Your task to perform on an android device: Find coffee shops on Maps Image 0: 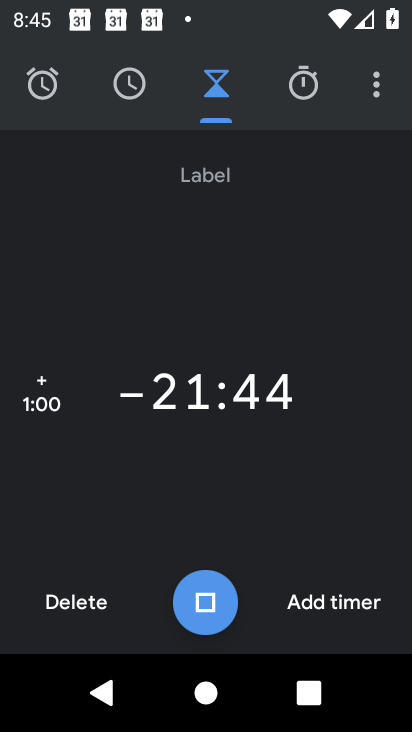
Step 0: click (97, 615)
Your task to perform on an android device: Find coffee shops on Maps Image 1: 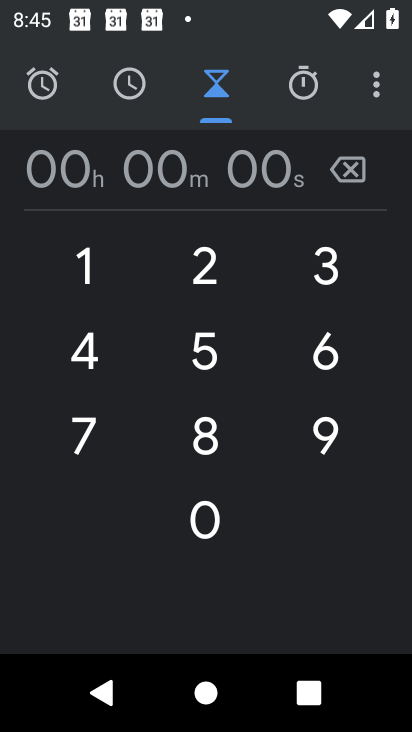
Step 1: press home button
Your task to perform on an android device: Find coffee shops on Maps Image 2: 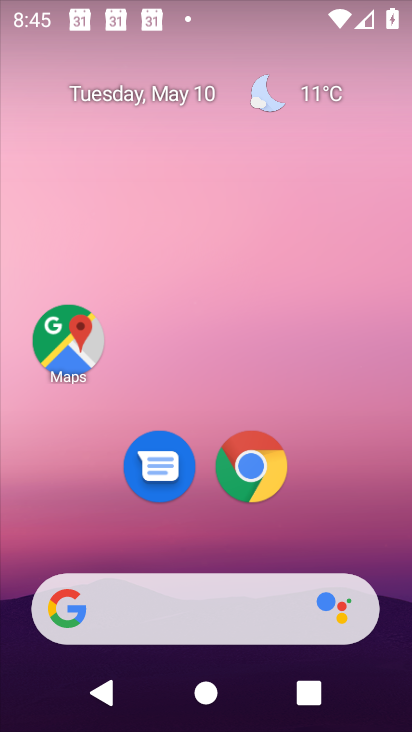
Step 2: click (77, 345)
Your task to perform on an android device: Find coffee shops on Maps Image 3: 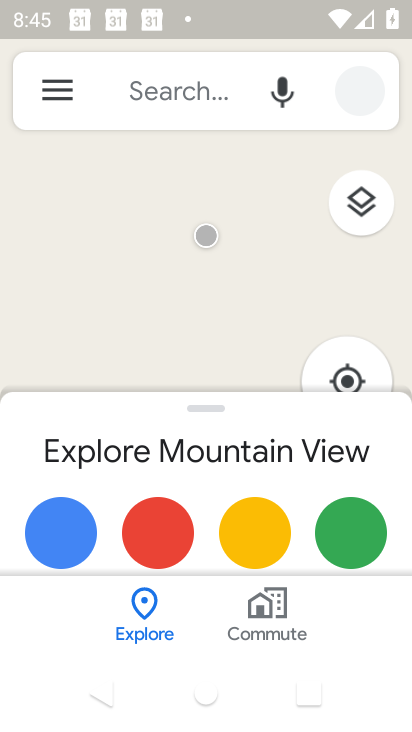
Step 3: click (177, 85)
Your task to perform on an android device: Find coffee shops on Maps Image 4: 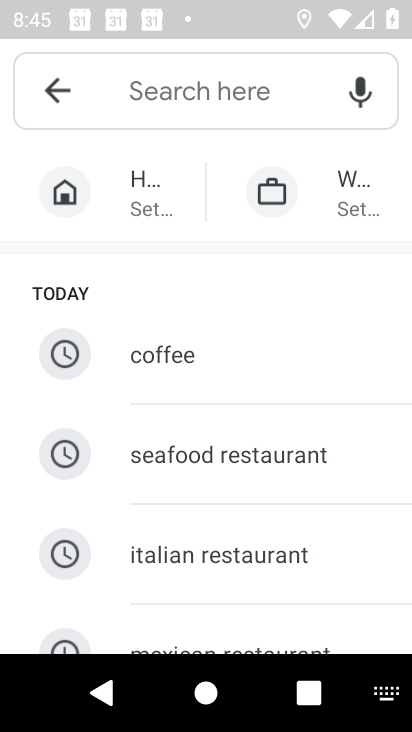
Step 4: type "coffee shops"
Your task to perform on an android device: Find coffee shops on Maps Image 5: 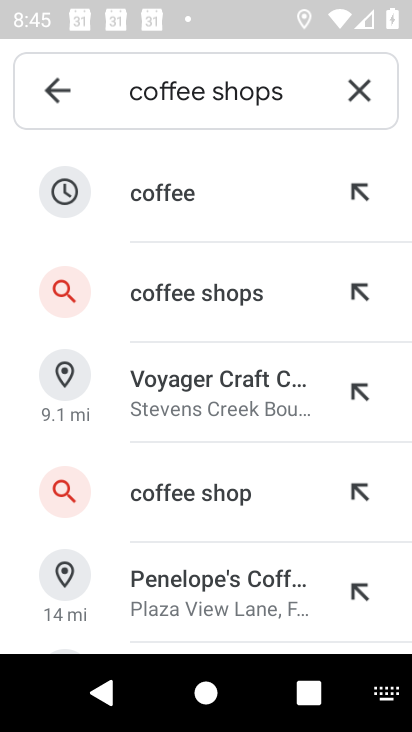
Step 5: click (214, 297)
Your task to perform on an android device: Find coffee shops on Maps Image 6: 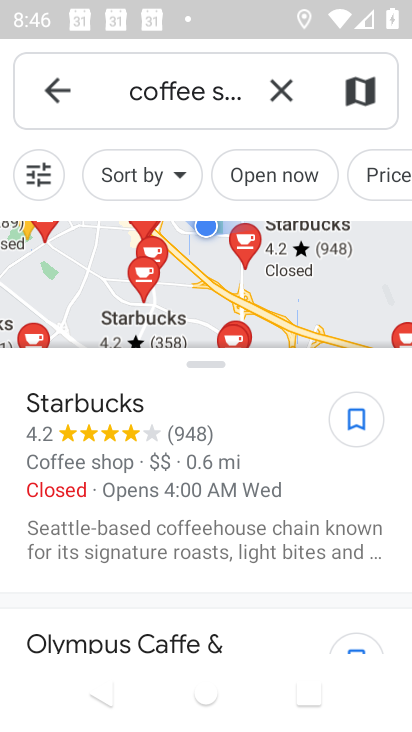
Step 6: task complete